Your task to perform on an android device: open a new tab in the chrome app Image 0: 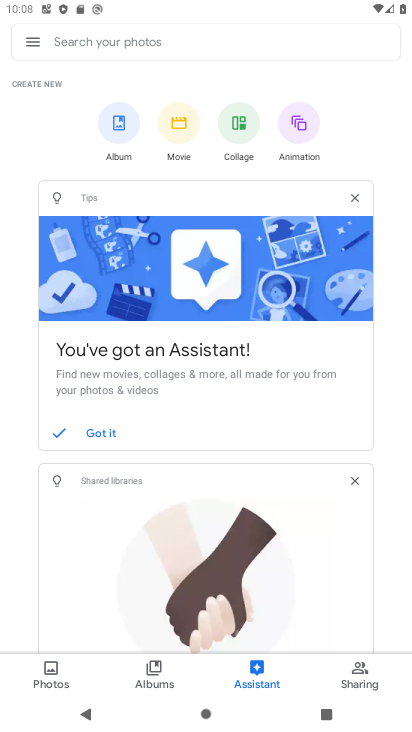
Step 0: press home button
Your task to perform on an android device: open a new tab in the chrome app Image 1: 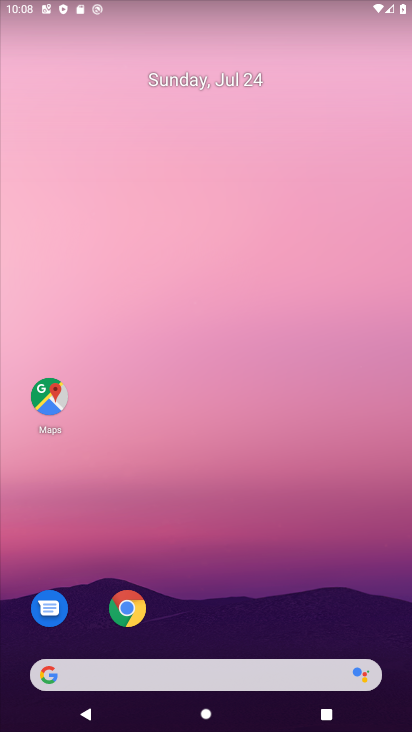
Step 1: click (123, 605)
Your task to perform on an android device: open a new tab in the chrome app Image 2: 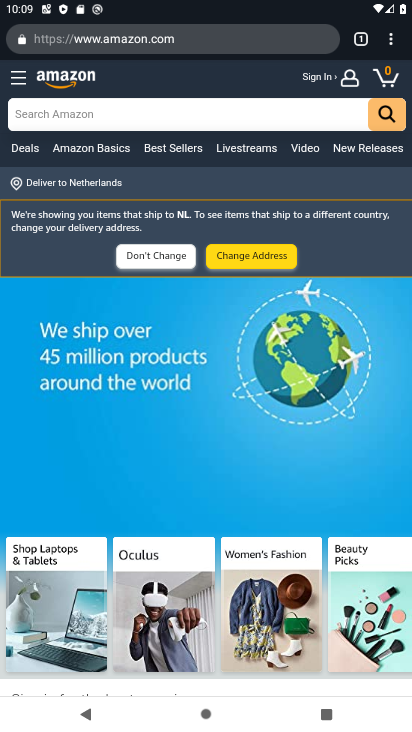
Step 2: click (395, 42)
Your task to perform on an android device: open a new tab in the chrome app Image 3: 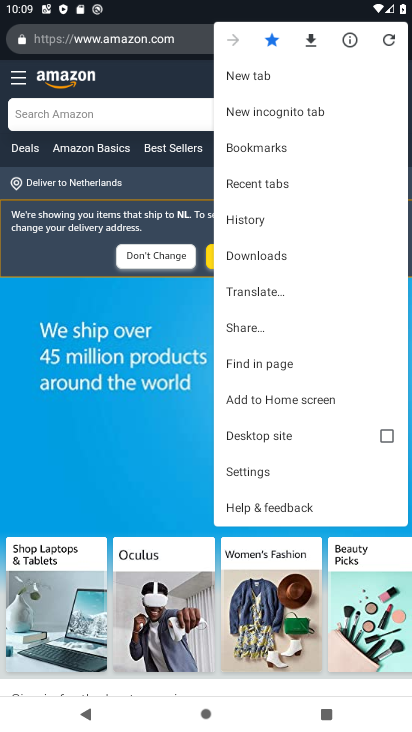
Step 3: click (256, 74)
Your task to perform on an android device: open a new tab in the chrome app Image 4: 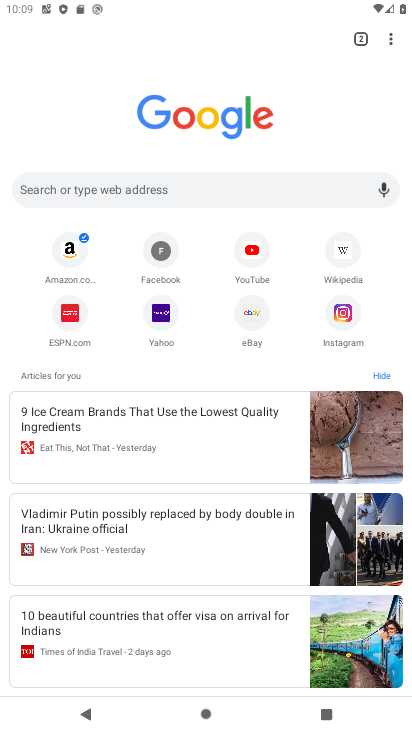
Step 4: task complete